Your task to perform on an android device: What is the news today? Image 0: 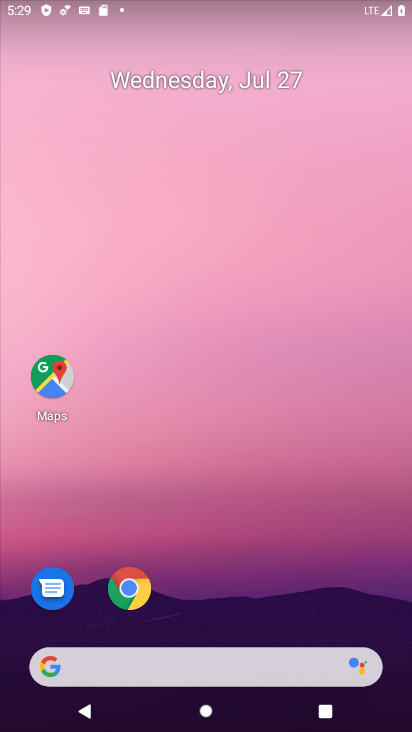
Step 0: drag from (246, 579) to (321, 59)
Your task to perform on an android device: What is the news today? Image 1: 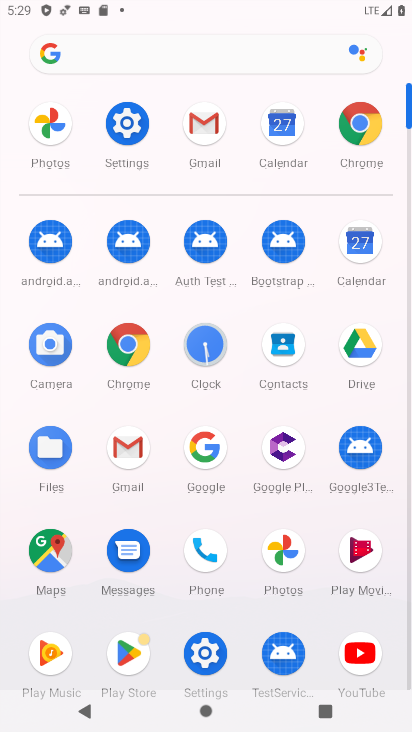
Step 1: click (200, 431)
Your task to perform on an android device: What is the news today? Image 2: 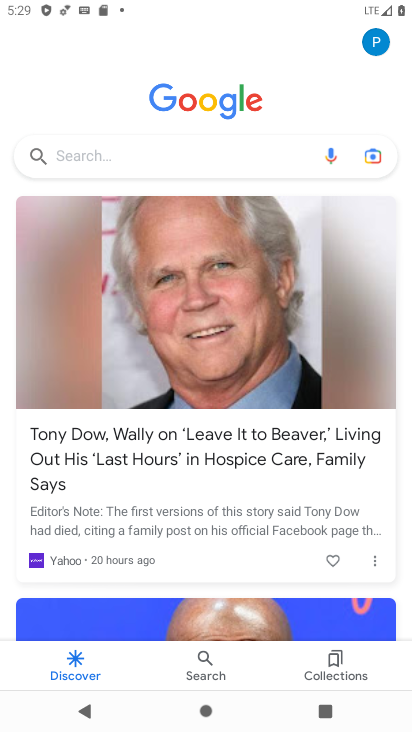
Step 2: click (242, 152)
Your task to perform on an android device: What is the news today? Image 3: 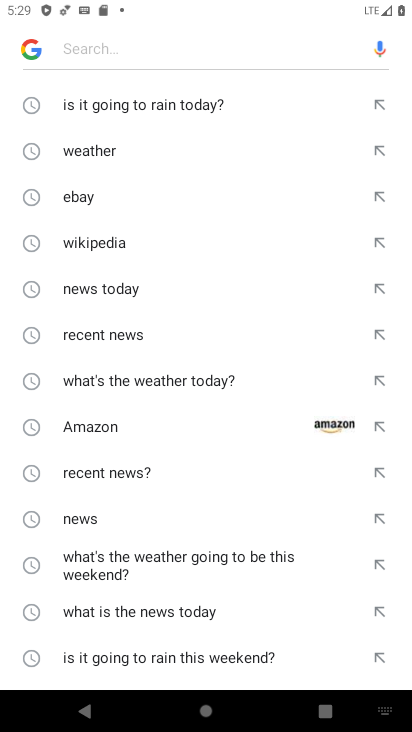
Step 3: click (131, 299)
Your task to perform on an android device: What is the news today? Image 4: 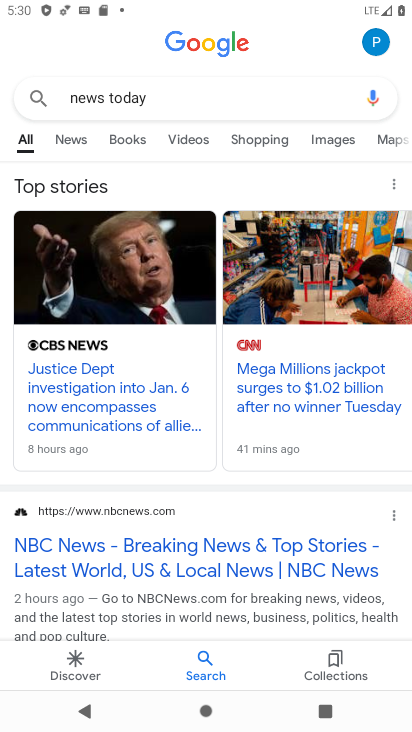
Step 4: task complete